Your task to perform on an android device: Open Maps and search for coffee Image 0: 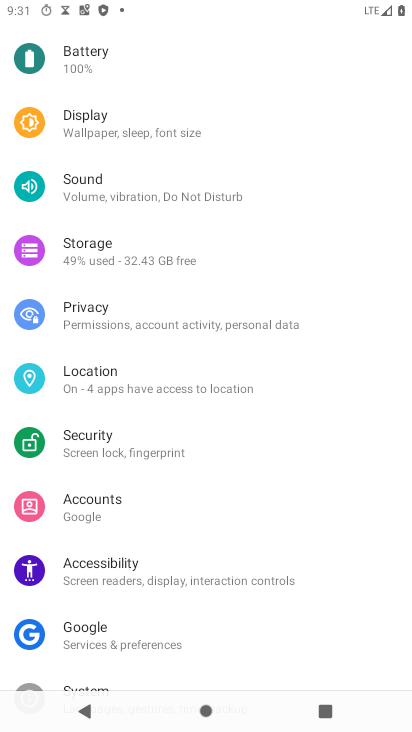
Step 0: press back button
Your task to perform on an android device: Open Maps and search for coffee Image 1: 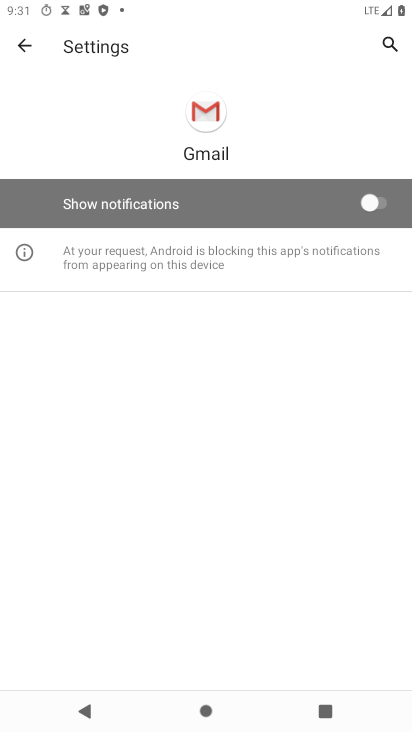
Step 1: click (18, 36)
Your task to perform on an android device: Open Maps and search for coffee Image 2: 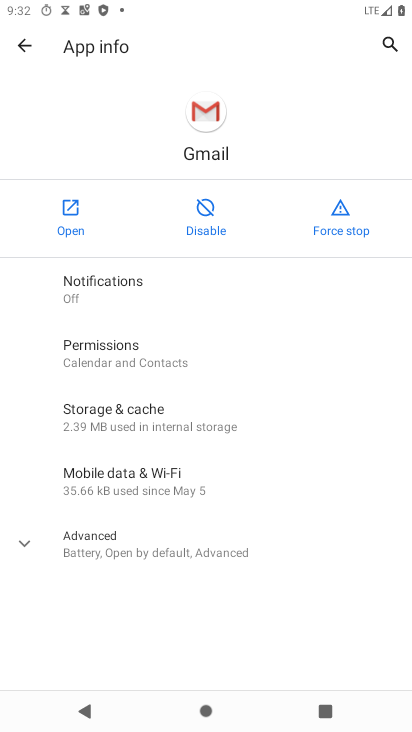
Step 2: press back button
Your task to perform on an android device: Open Maps and search for coffee Image 3: 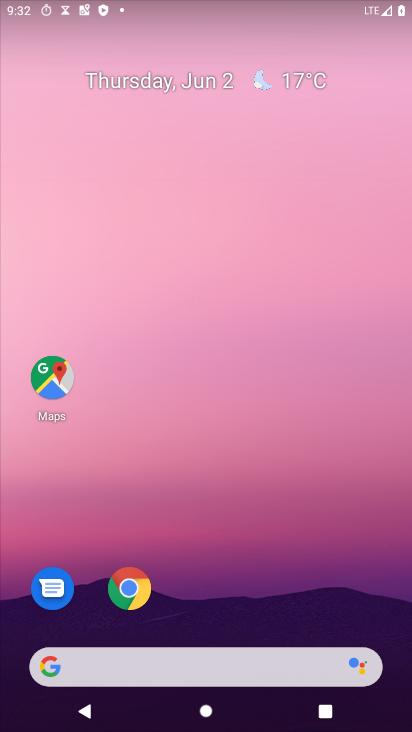
Step 3: click (60, 373)
Your task to perform on an android device: Open Maps and search for coffee Image 4: 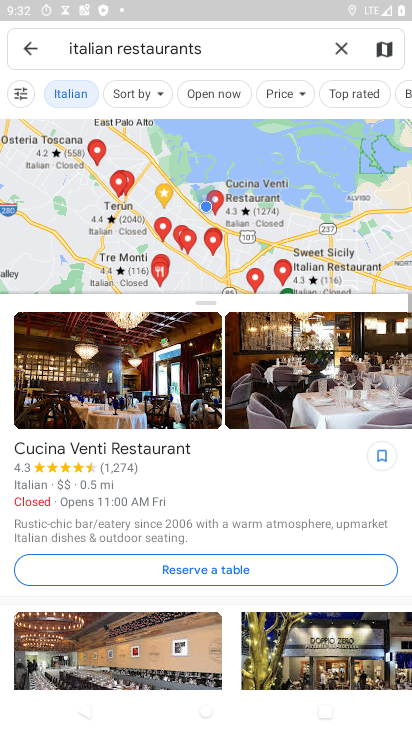
Step 4: click (339, 54)
Your task to perform on an android device: Open Maps and search for coffee Image 5: 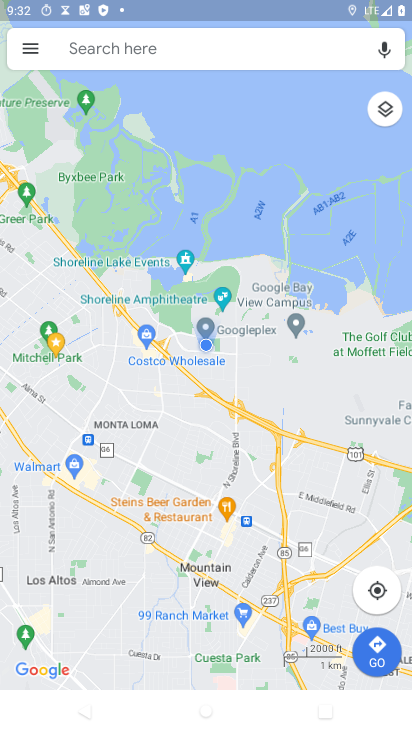
Step 5: click (139, 55)
Your task to perform on an android device: Open Maps and search for coffee Image 6: 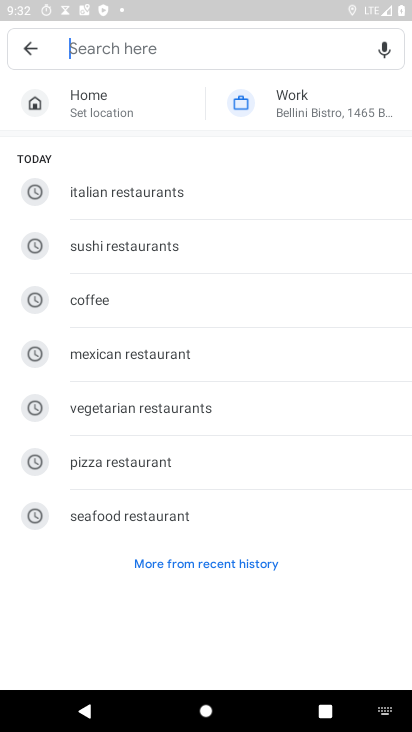
Step 6: click (96, 294)
Your task to perform on an android device: Open Maps and search for coffee Image 7: 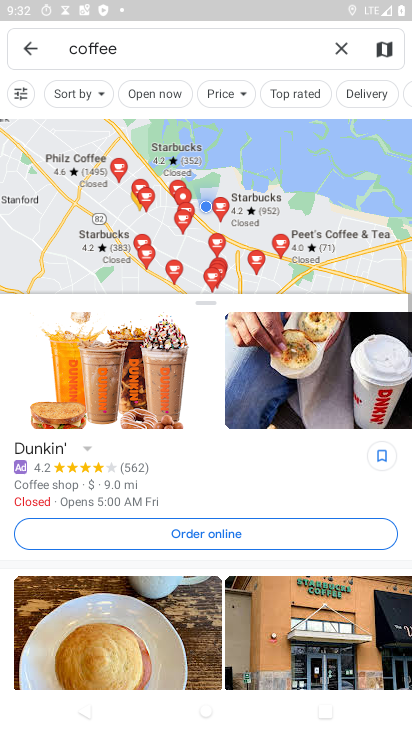
Step 7: task complete